Your task to perform on an android device: change your default location settings in chrome Image 0: 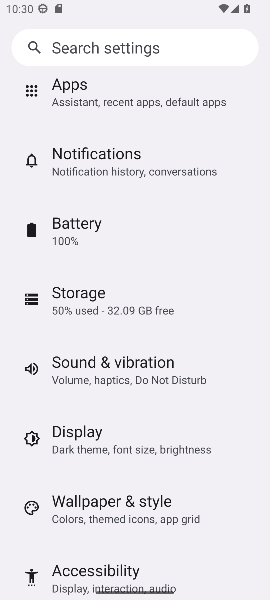
Step 0: press home button
Your task to perform on an android device: change your default location settings in chrome Image 1: 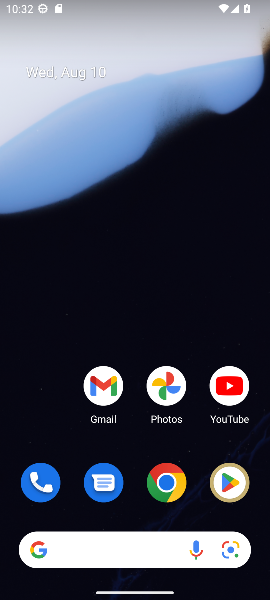
Step 1: drag from (183, 284) to (174, 17)
Your task to perform on an android device: change your default location settings in chrome Image 2: 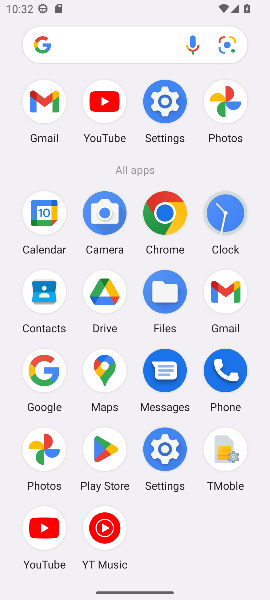
Step 2: click (160, 445)
Your task to perform on an android device: change your default location settings in chrome Image 3: 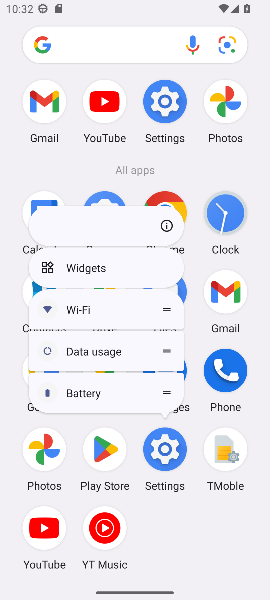
Step 3: click (169, 199)
Your task to perform on an android device: change your default location settings in chrome Image 4: 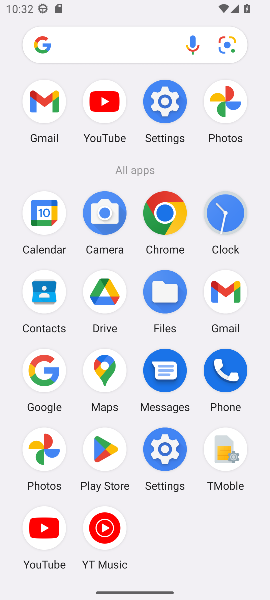
Step 4: click (169, 199)
Your task to perform on an android device: change your default location settings in chrome Image 5: 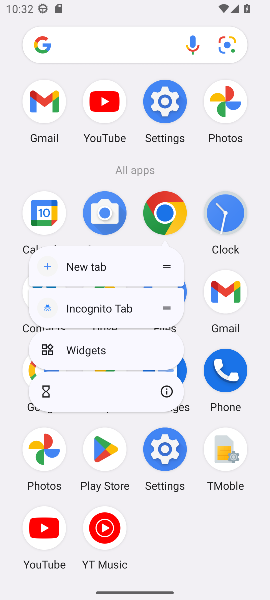
Step 5: click (163, 222)
Your task to perform on an android device: change your default location settings in chrome Image 6: 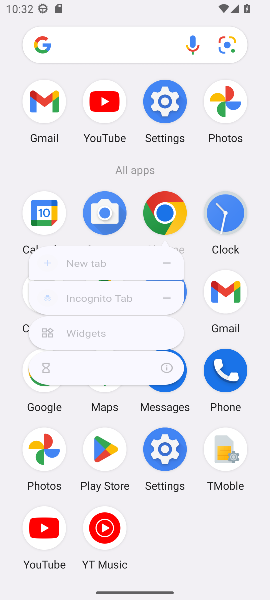
Step 6: click (163, 222)
Your task to perform on an android device: change your default location settings in chrome Image 7: 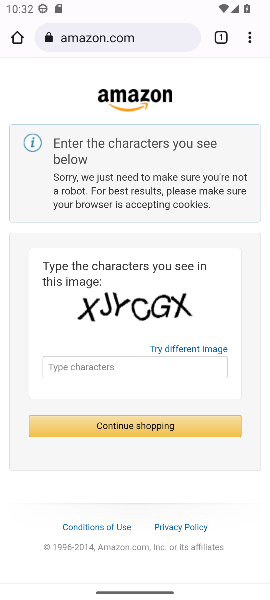
Step 7: click (252, 41)
Your task to perform on an android device: change your default location settings in chrome Image 8: 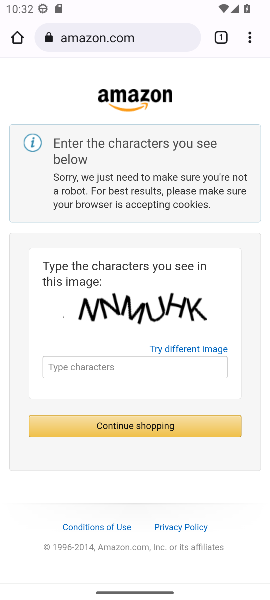
Step 8: click (257, 39)
Your task to perform on an android device: change your default location settings in chrome Image 9: 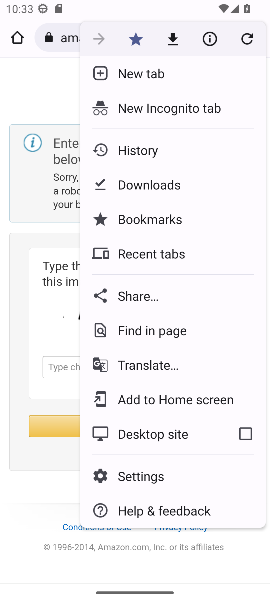
Step 9: click (147, 473)
Your task to perform on an android device: change your default location settings in chrome Image 10: 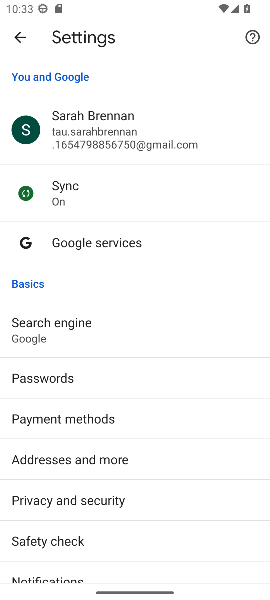
Step 10: task complete